Your task to perform on an android device: Open wifi settings Image 0: 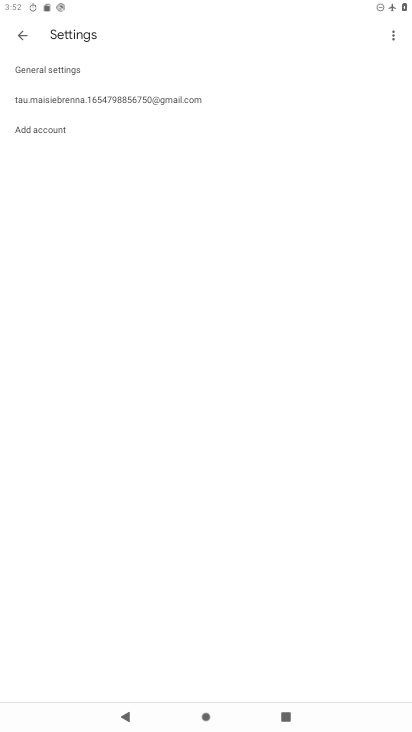
Step 0: press home button
Your task to perform on an android device: Open wifi settings Image 1: 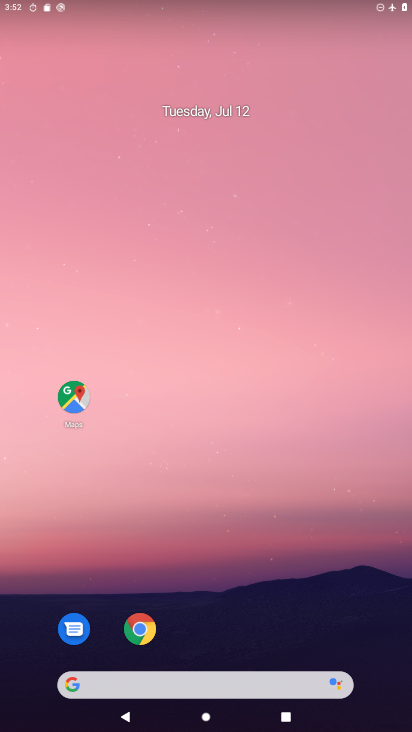
Step 1: drag from (281, 0) to (251, 492)
Your task to perform on an android device: Open wifi settings Image 2: 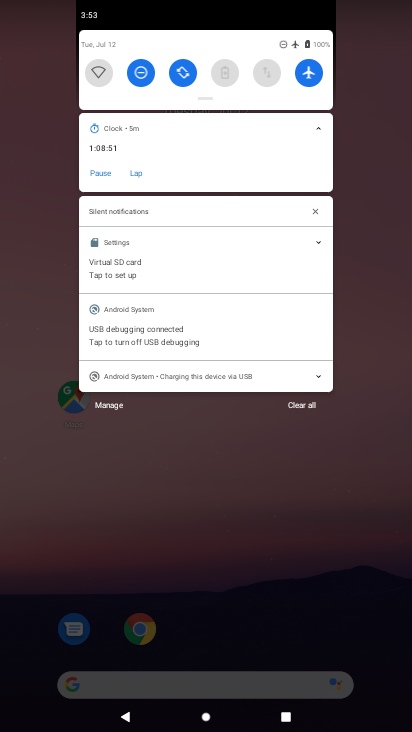
Step 2: click (106, 73)
Your task to perform on an android device: Open wifi settings Image 3: 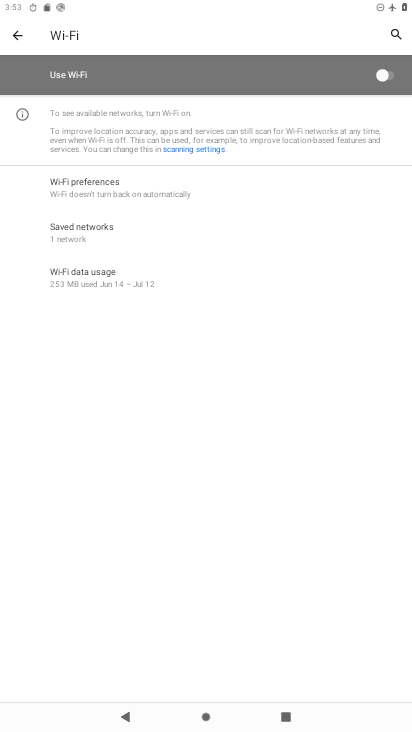
Step 3: task complete